Your task to perform on an android device: turn on the 24-hour format for clock Image 0: 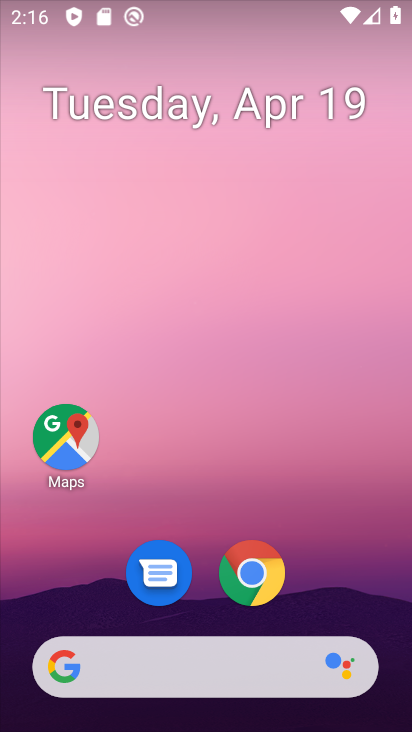
Step 0: drag from (372, 428) to (360, 5)
Your task to perform on an android device: turn on the 24-hour format for clock Image 1: 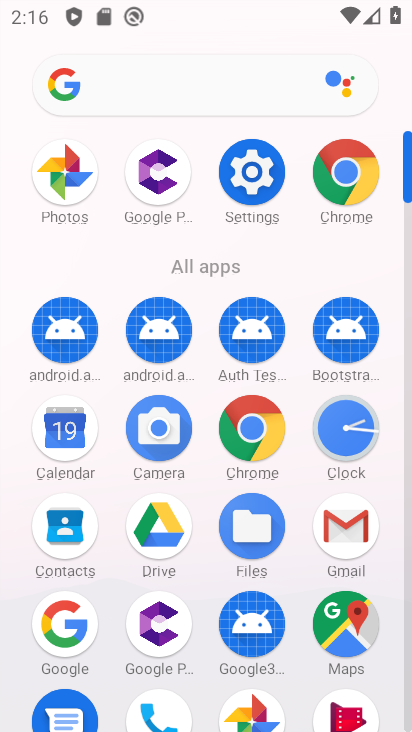
Step 1: click (343, 420)
Your task to perform on an android device: turn on the 24-hour format for clock Image 2: 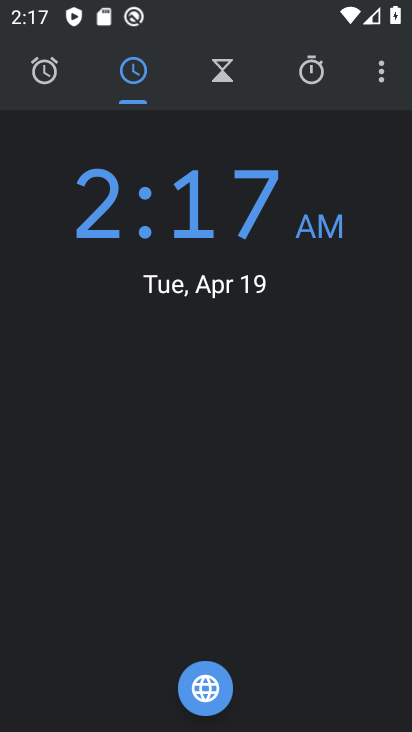
Step 2: click (384, 81)
Your task to perform on an android device: turn on the 24-hour format for clock Image 3: 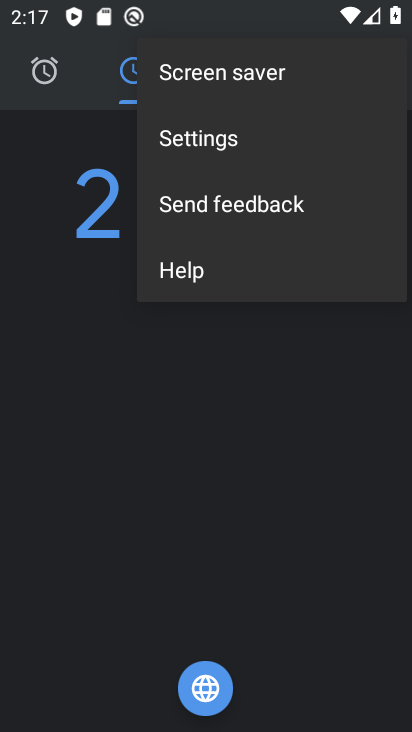
Step 3: click (204, 146)
Your task to perform on an android device: turn on the 24-hour format for clock Image 4: 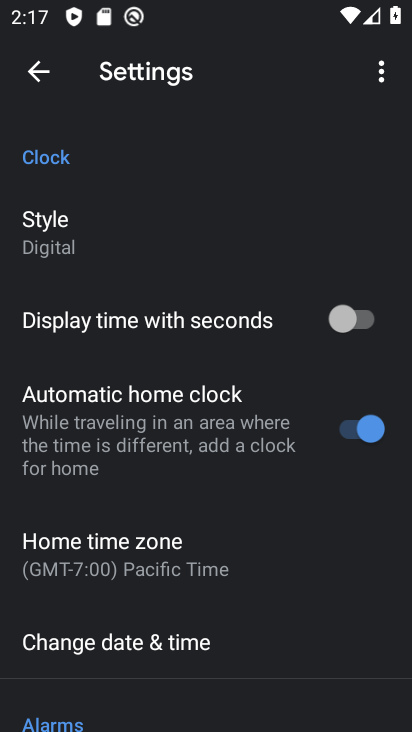
Step 4: click (165, 636)
Your task to perform on an android device: turn on the 24-hour format for clock Image 5: 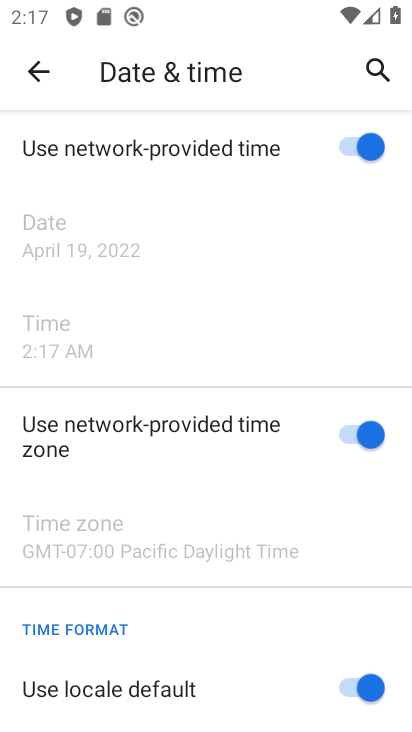
Step 5: drag from (162, 595) to (150, 302)
Your task to perform on an android device: turn on the 24-hour format for clock Image 6: 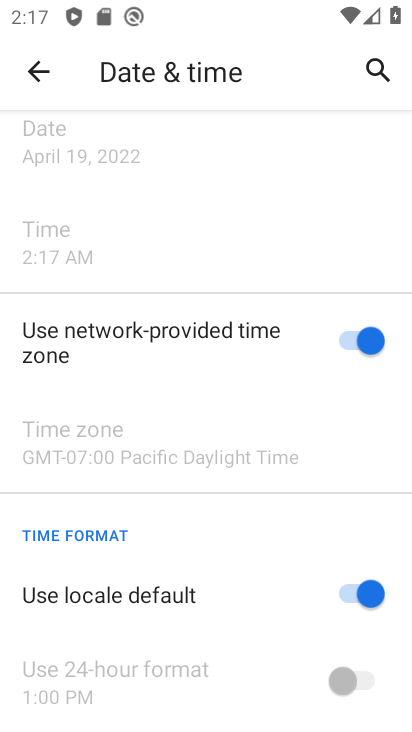
Step 6: drag from (186, 608) to (183, 413)
Your task to perform on an android device: turn on the 24-hour format for clock Image 7: 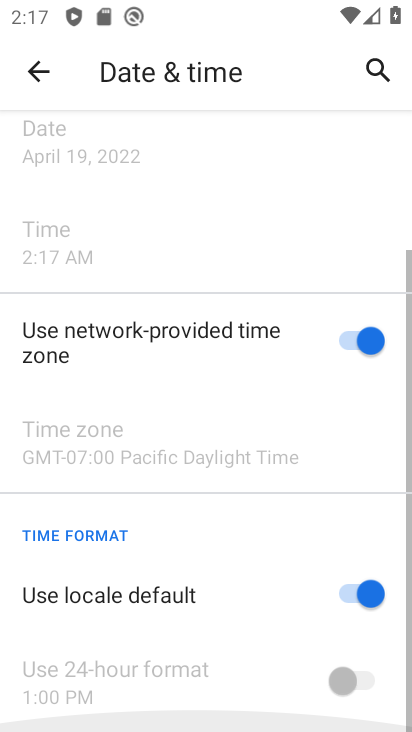
Step 7: click (351, 591)
Your task to perform on an android device: turn on the 24-hour format for clock Image 8: 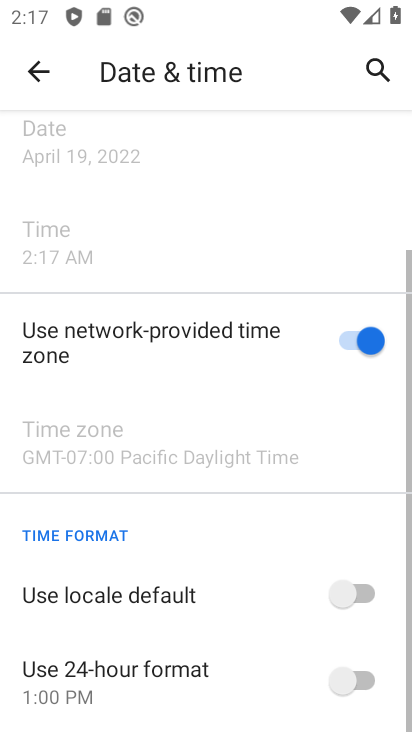
Step 8: click (350, 687)
Your task to perform on an android device: turn on the 24-hour format for clock Image 9: 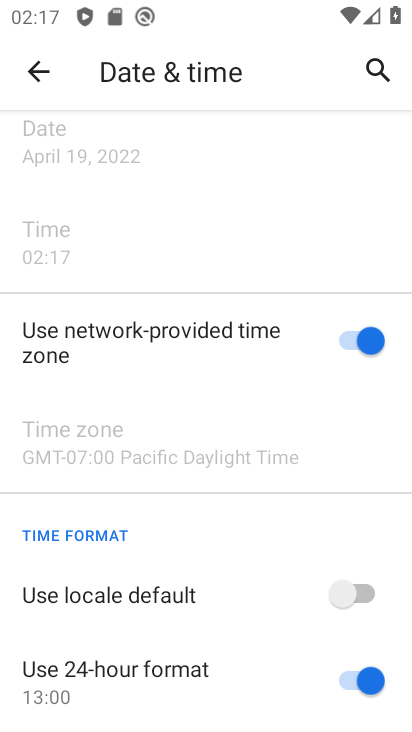
Step 9: task complete